Your task to perform on an android device: Go to Android settings Image 0: 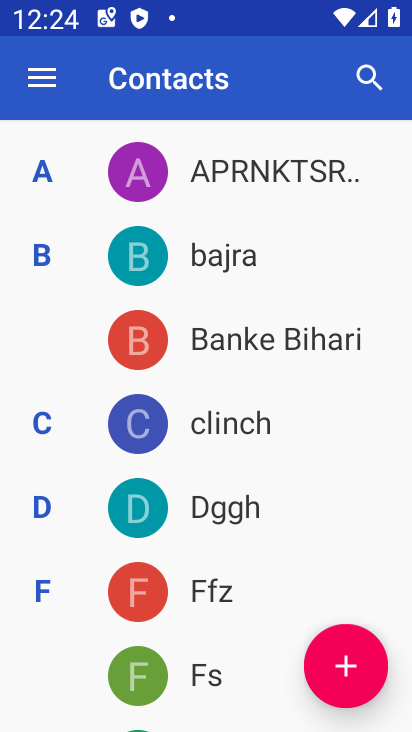
Step 0: press back button
Your task to perform on an android device: Go to Android settings Image 1: 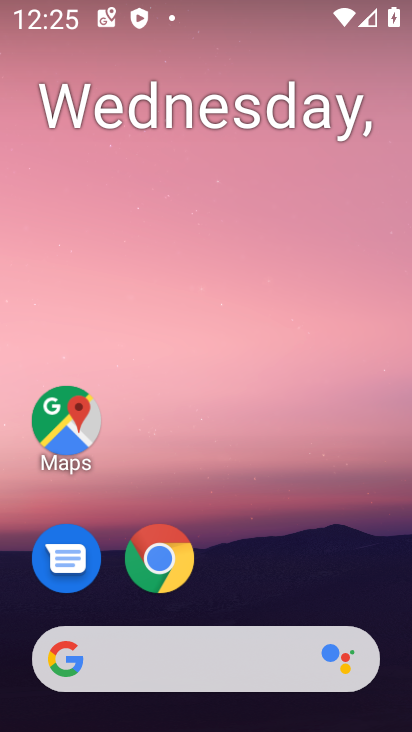
Step 1: drag from (248, 622) to (306, 11)
Your task to perform on an android device: Go to Android settings Image 2: 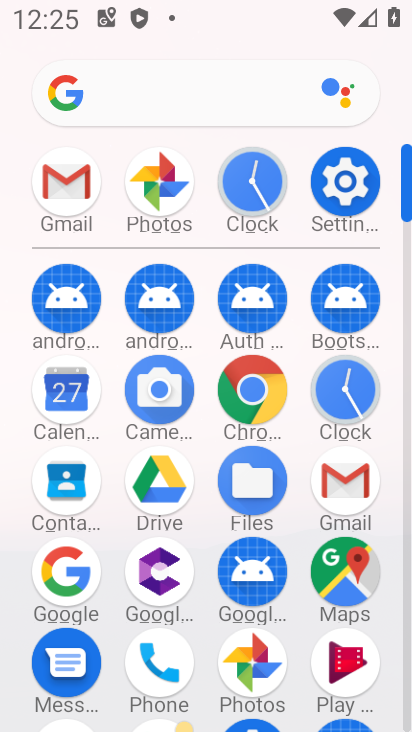
Step 2: click (332, 175)
Your task to perform on an android device: Go to Android settings Image 3: 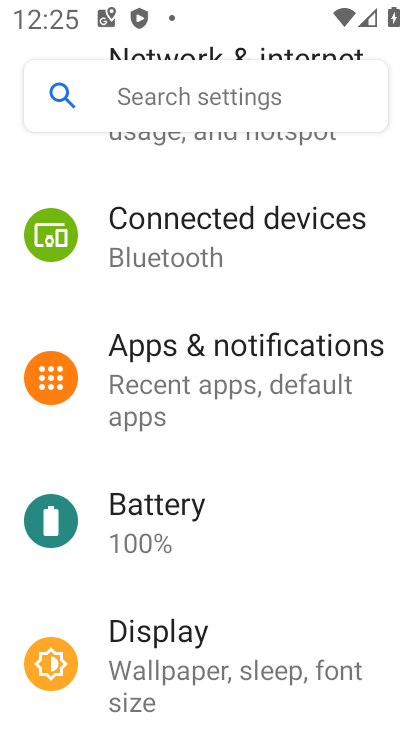
Step 3: drag from (189, 625) to (296, 41)
Your task to perform on an android device: Go to Android settings Image 4: 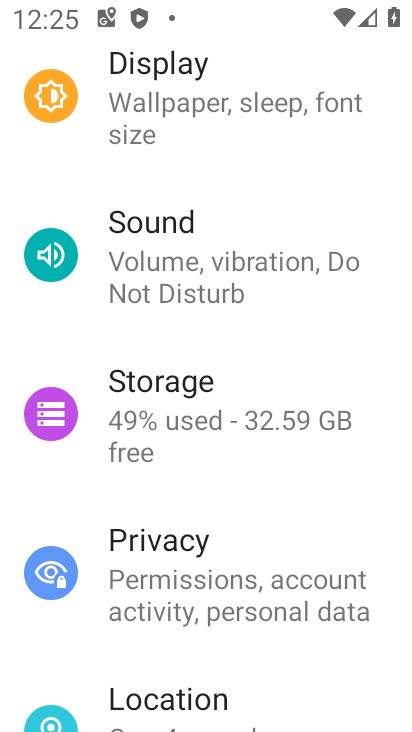
Step 4: drag from (177, 668) to (272, 39)
Your task to perform on an android device: Go to Android settings Image 5: 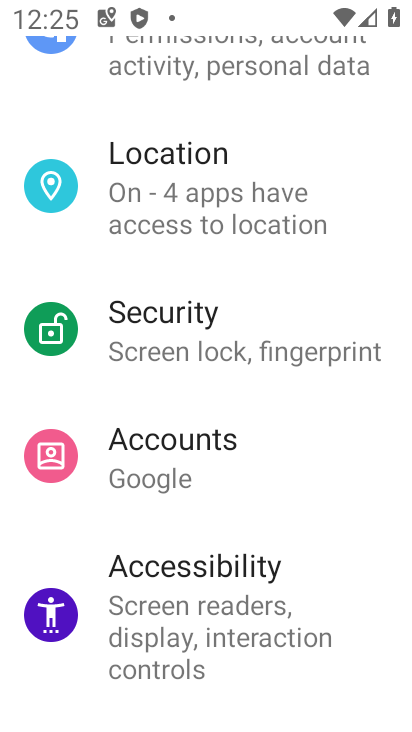
Step 5: drag from (177, 627) to (243, 43)
Your task to perform on an android device: Go to Android settings Image 6: 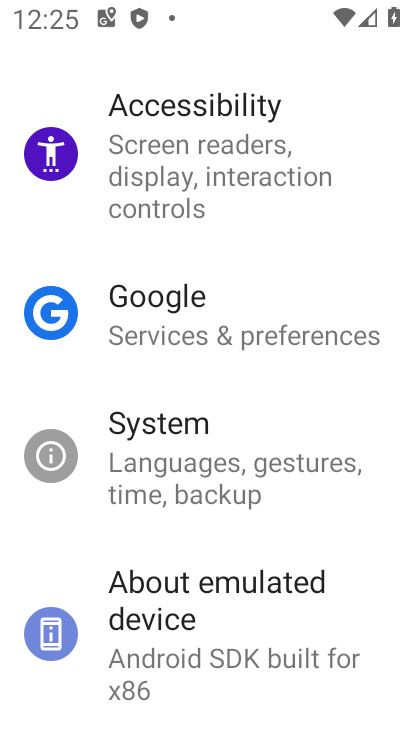
Step 6: click (188, 637)
Your task to perform on an android device: Go to Android settings Image 7: 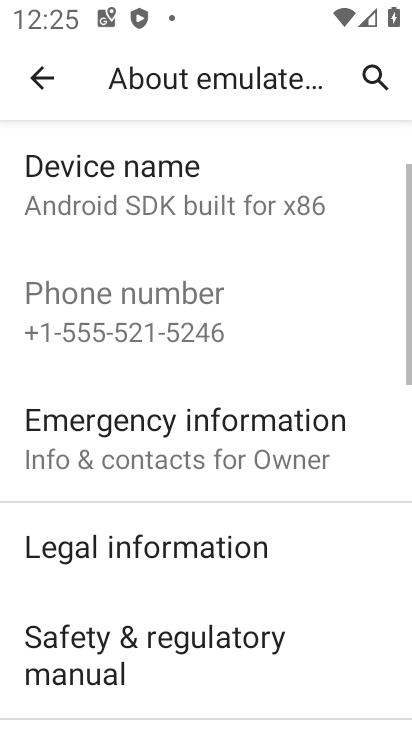
Step 7: task complete